Your task to perform on an android device: check out phone information Image 0: 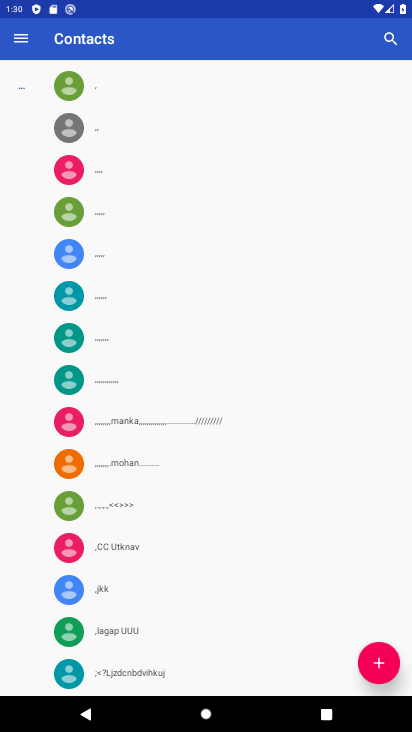
Step 0: press home button
Your task to perform on an android device: check out phone information Image 1: 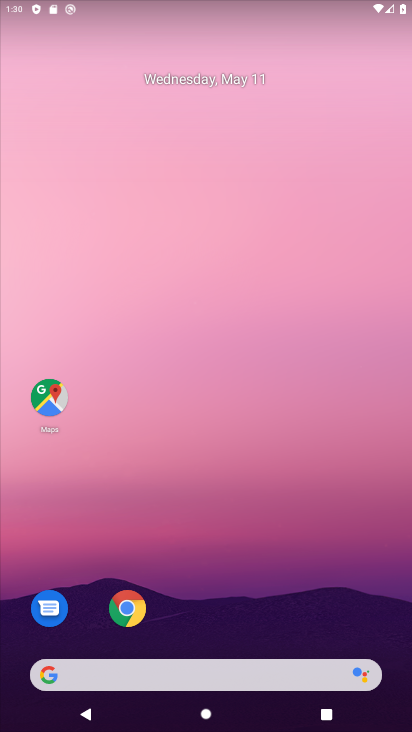
Step 1: drag from (274, 617) to (247, 0)
Your task to perform on an android device: check out phone information Image 2: 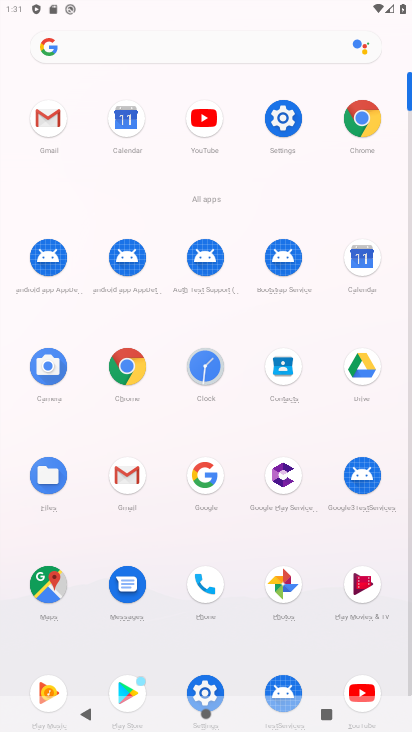
Step 2: click (278, 103)
Your task to perform on an android device: check out phone information Image 3: 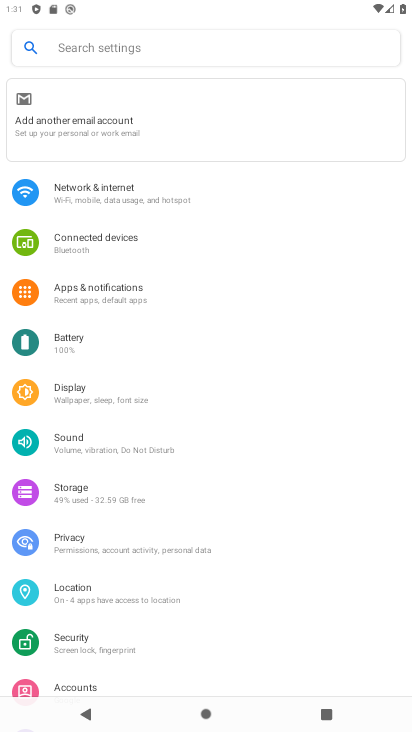
Step 3: drag from (183, 653) to (178, 335)
Your task to perform on an android device: check out phone information Image 4: 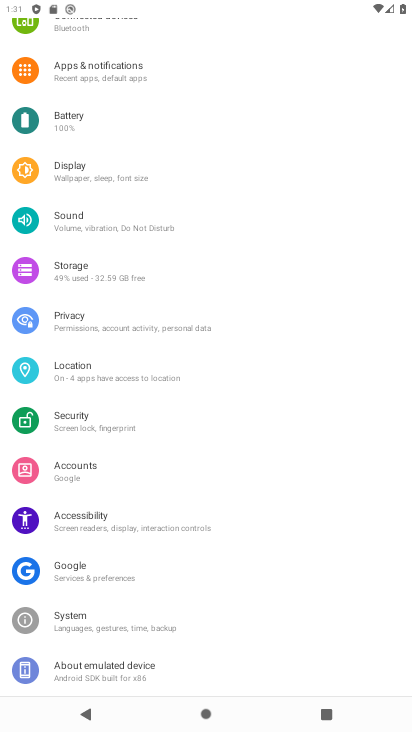
Step 4: click (125, 661)
Your task to perform on an android device: check out phone information Image 5: 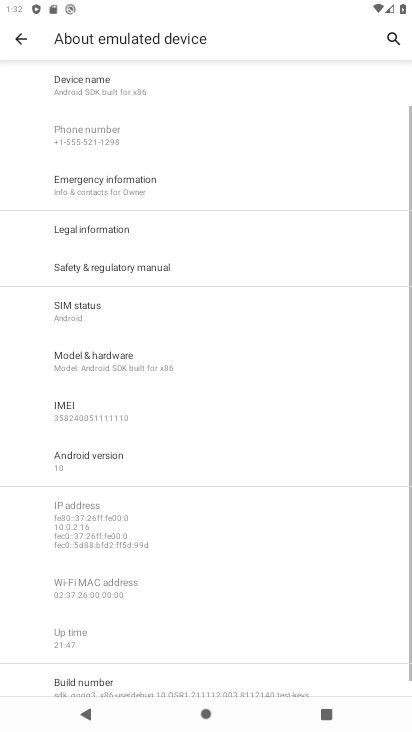
Step 5: drag from (227, 646) to (248, 151)
Your task to perform on an android device: check out phone information Image 6: 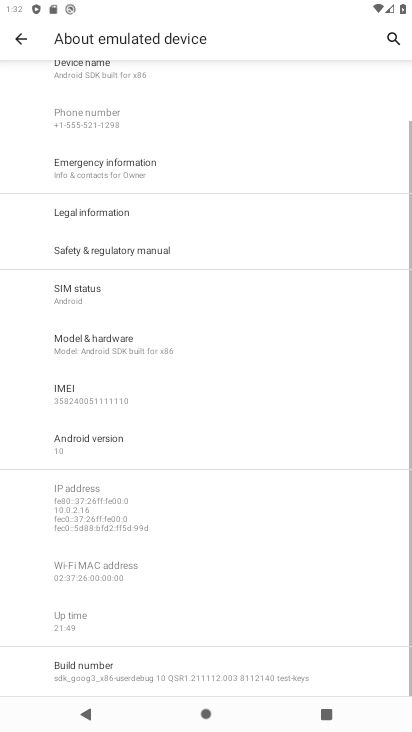
Step 6: drag from (389, 246) to (369, 100)
Your task to perform on an android device: check out phone information Image 7: 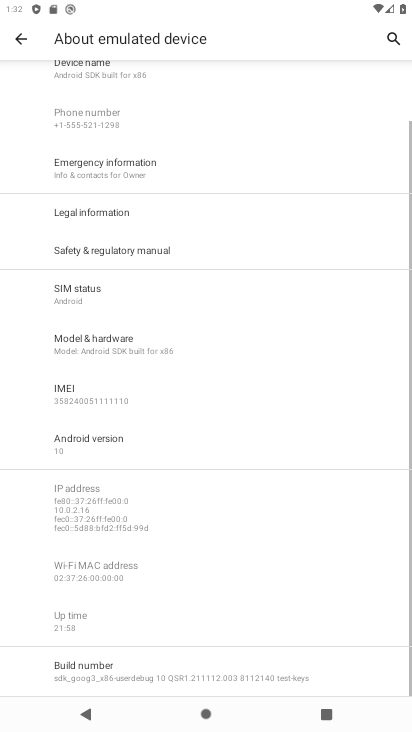
Step 7: drag from (281, 141) to (240, 605)
Your task to perform on an android device: check out phone information Image 8: 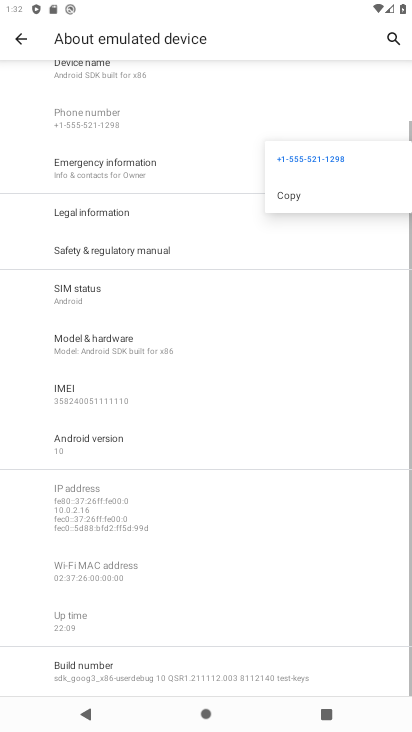
Step 8: drag from (118, 102) to (169, 605)
Your task to perform on an android device: check out phone information Image 9: 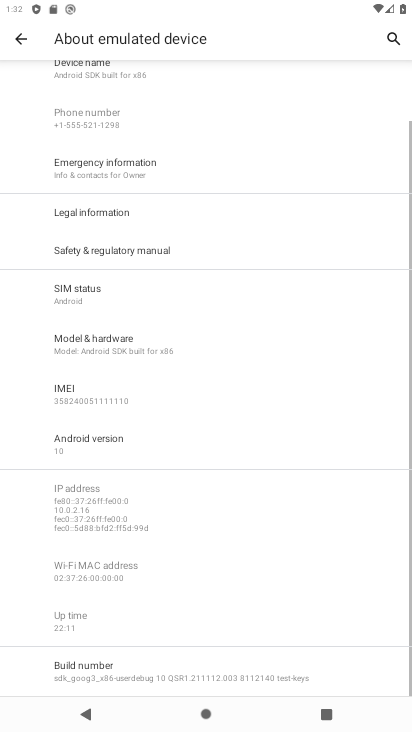
Step 9: drag from (144, 90) to (200, 547)
Your task to perform on an android device: check out phone information Image 10: 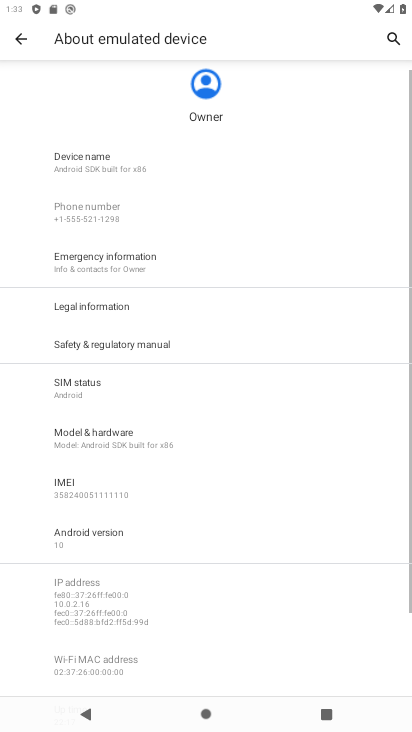
Step 10: click (203, 444)
Your task to perform on an android device: check out phone information Image 11: 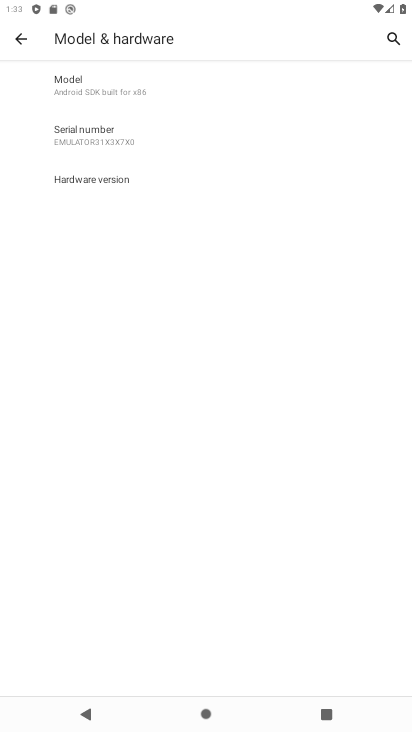
Step 11: click (160, 498)
Your task to perform on an android device: check out phone information Image 12: 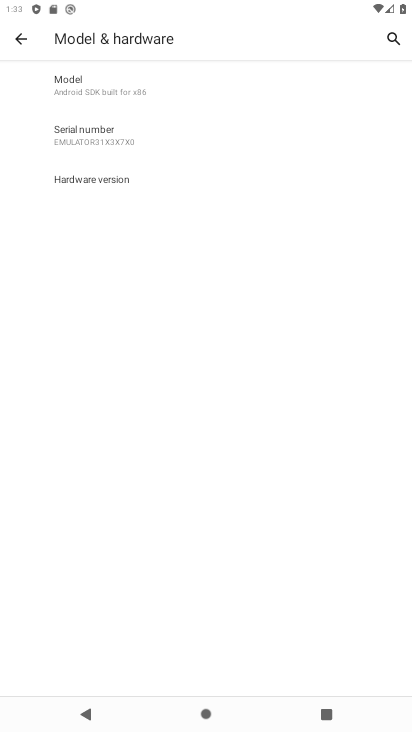
Step 12: click (209, 167)
Your task to perform on an android device: check out phone information Image 13: 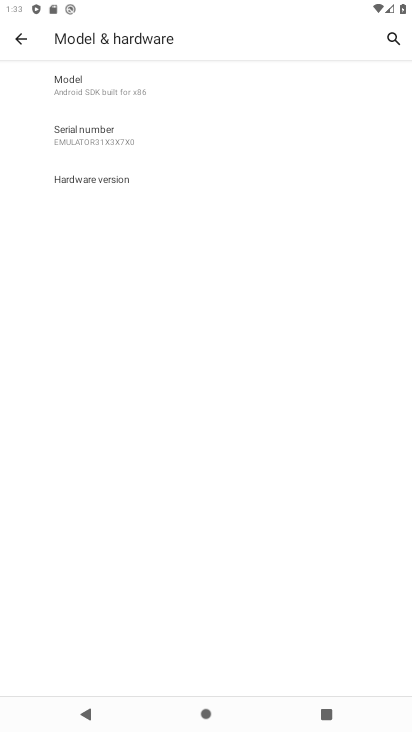
Step 13: click (210, 126)
Your task to perform on an android device: check out phone information Image 14: 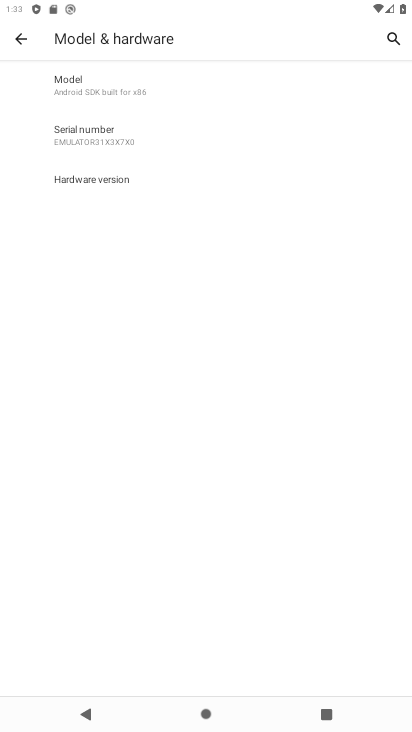
Step 14: click (219, 64)
Your task to perform on an android device: check out phone information Image 15: 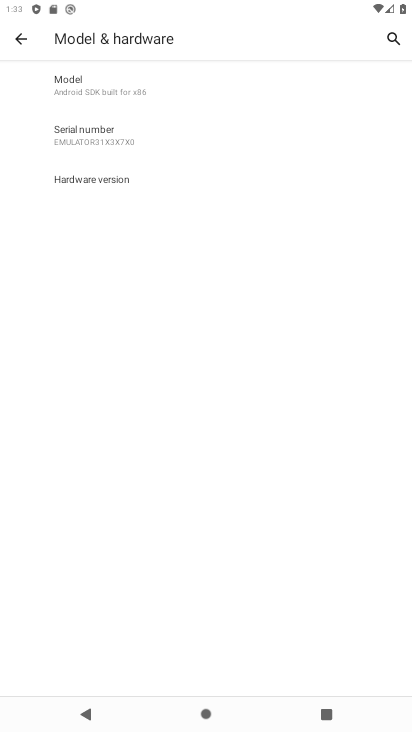
Step 15: task complete